Your task to perform on an android device: turn on sleep mode Image 0: 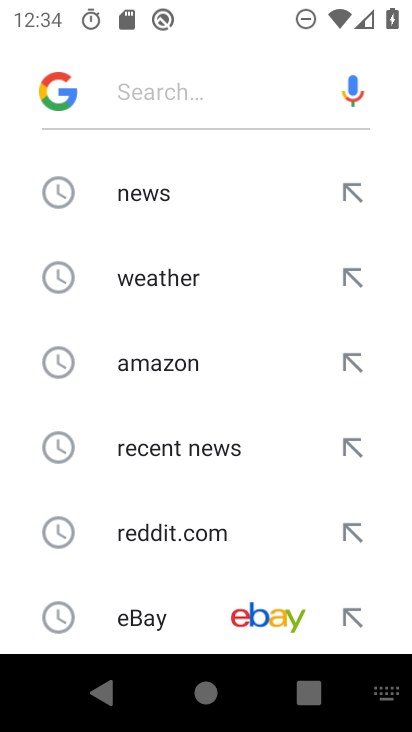
Step 0: press home button
Your task to perform on an android device: turn on sleep mode Image 1: 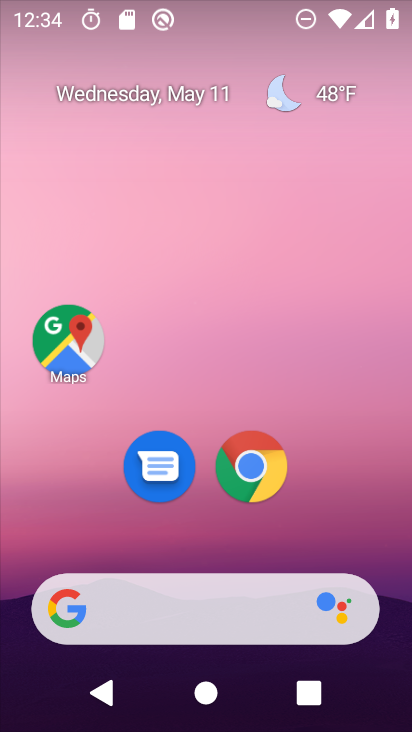
Step 1: drag from (214, 550) to (225, 94)
Your task to perform on an android device: turn on sleep mode Image 2: 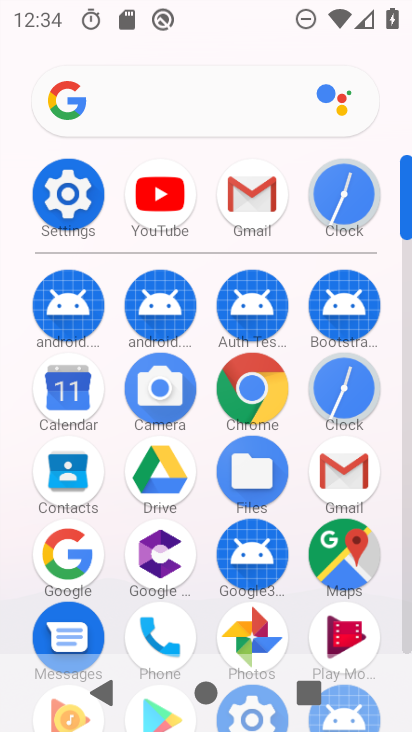
Step 2: click (66, 191)
Your task to perform on an android device: turn on sleep mode Image 3: 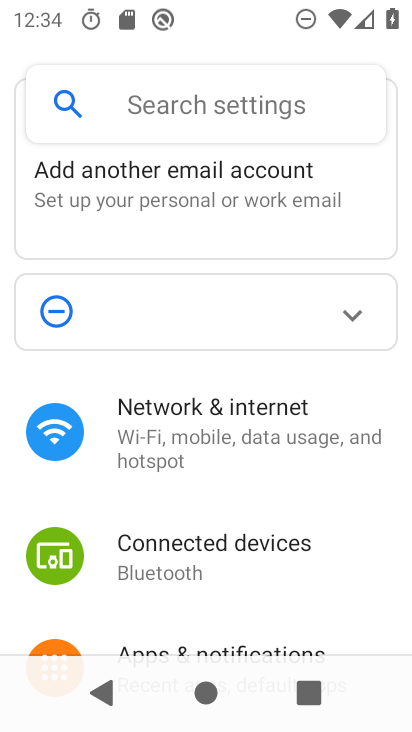
Step 3: drag from (195, 619) to (217, 140)
Your task to perform on an android device: turn on sleep mode Image 4: 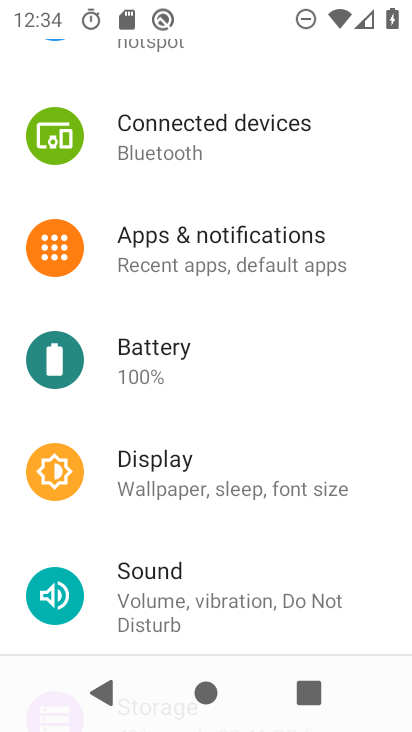
Step 4: drag from (209, 624) to (226, 144)
Your task to perform on an android device: turn on sleep mode Image 5: 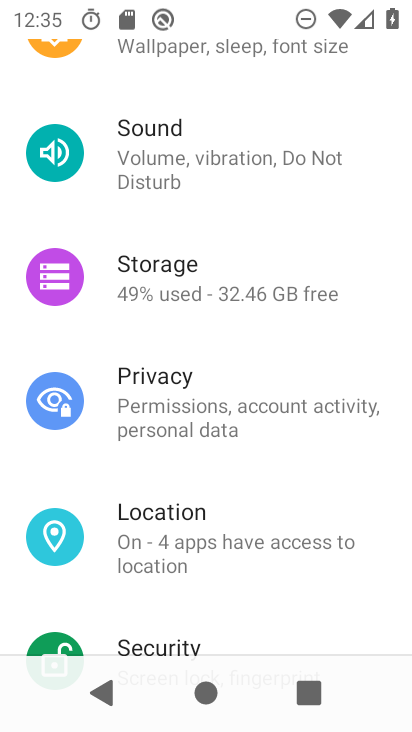
Step 5: click (197, 53)
Your task to perform on an android device: turn on sleep mode Image 6: 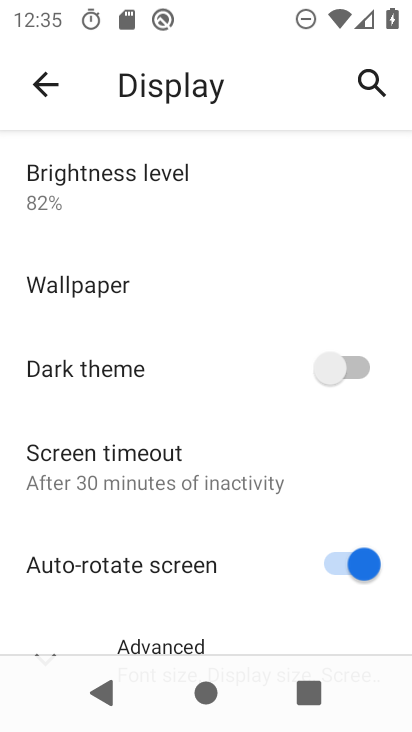
Step 6: task complete